Your task to perform on an android device: See recent photos Image 0: 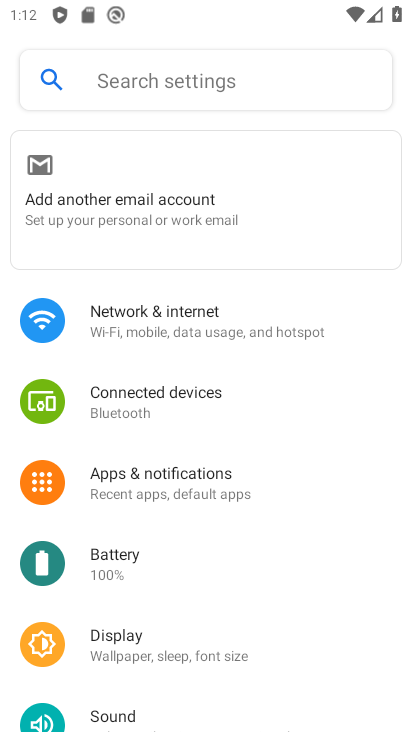
Step 0: drag from (325, 644) to (332, 496)
Your task to perform on an android device: See recent photos Image 1: 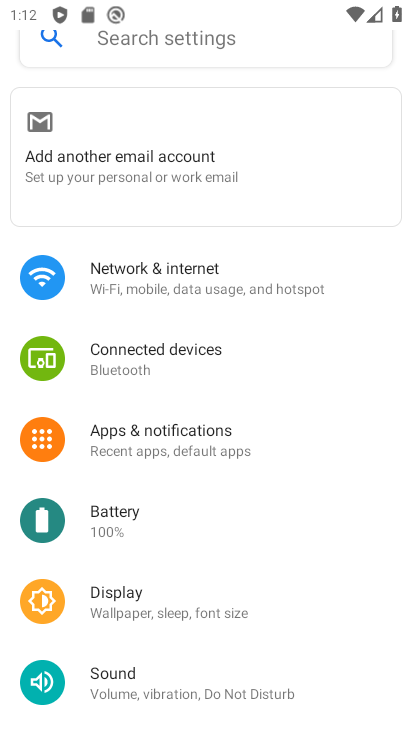
Step 1: press home button
Your task to perform on an android device: See recent photos Image 2: 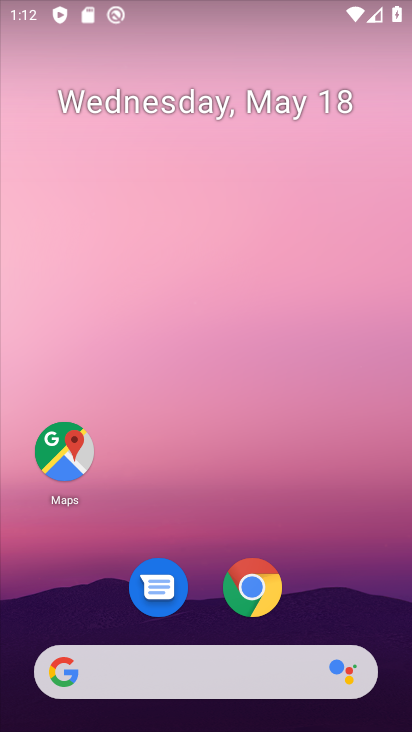
Step 2: drag from (389, 636) to (374, 245)
Your task to perform on an android device: See recent photos Image 3: 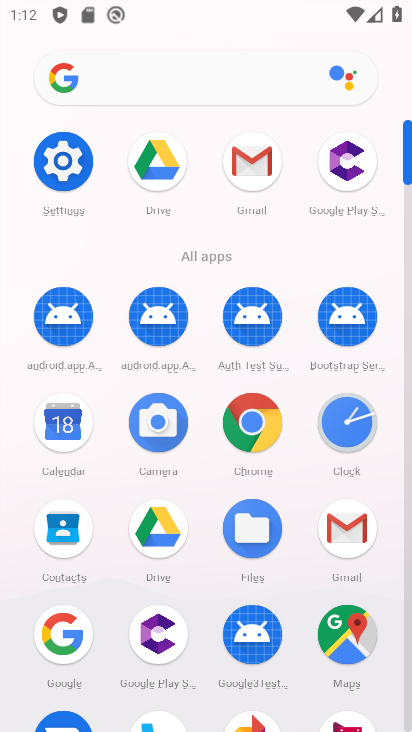
Step 3: click (247, 722)
Your task to perform on an android device: See recent photos Image 4: 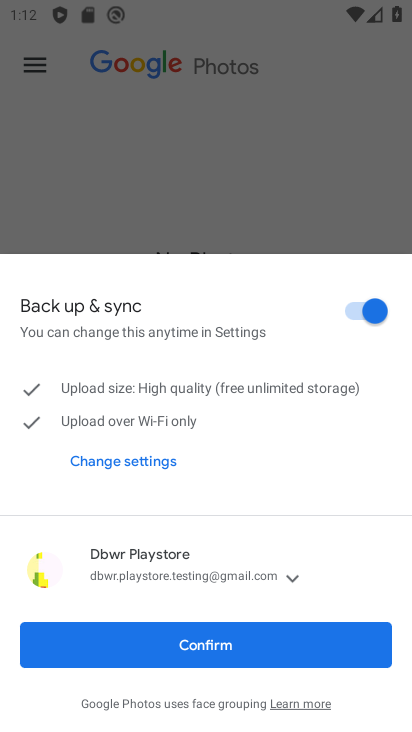
Step 4: click (180, 648)
Your task to perform on an android device: See recent photos Image 5: 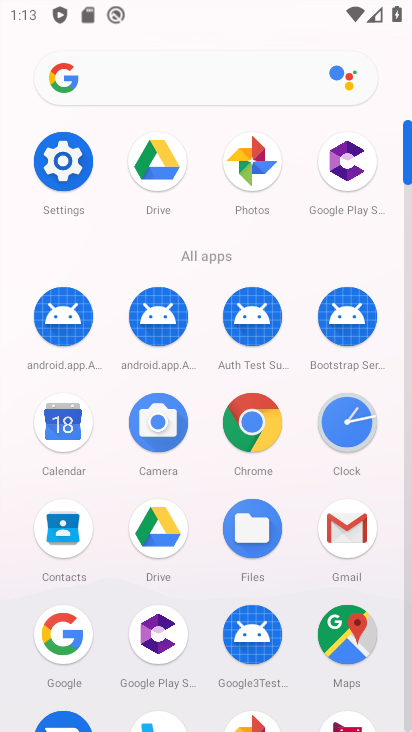
Step 5: click (243, 173)
Your task to perform on an android device: See recent photos Image 6: 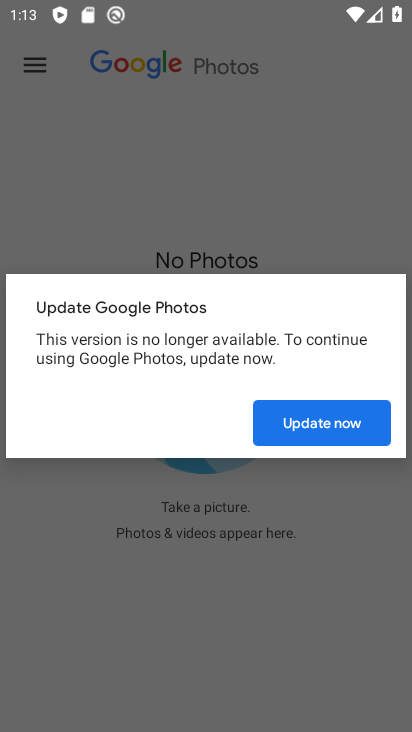
Step 6: click (339, 426)
Your task to perform on an android device: See recent photos Image 7: 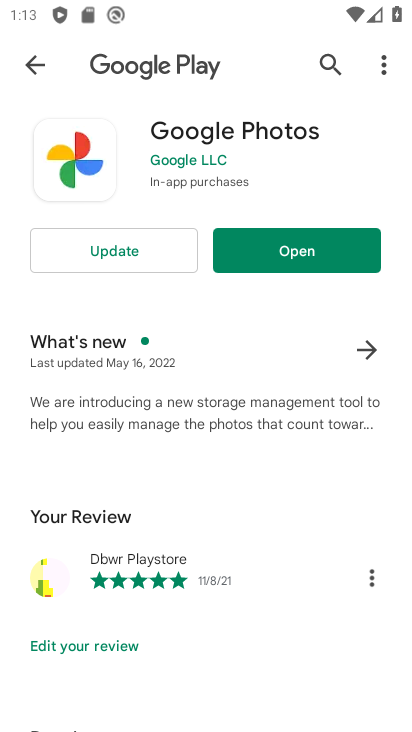
Step 7: click (257, 260)
Your task to perform on an android device: See recent photos Image 8: 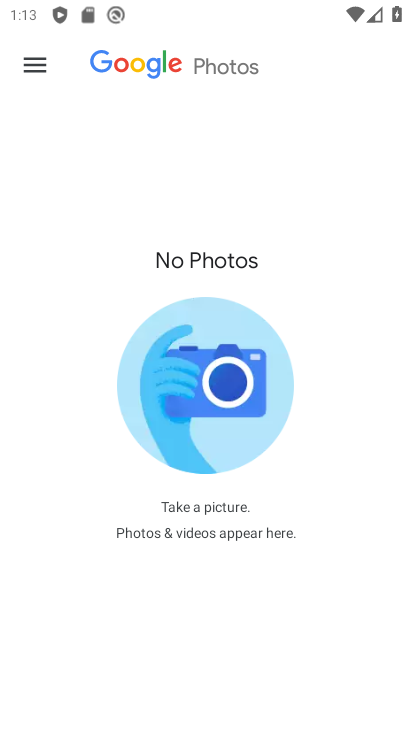
Step 8: task complete